Your task to perform on an android device: turn off sleep mode Image 0: 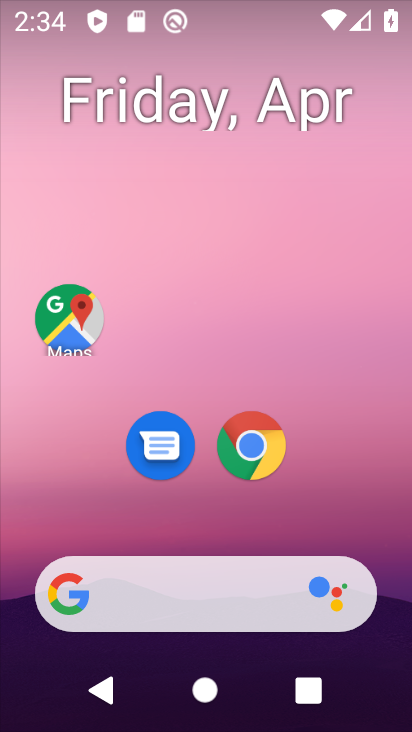
Step 0: drag from (334, 524) to (302, 25)
Your task to perform on an android device: turn off sleep mode Image 1: 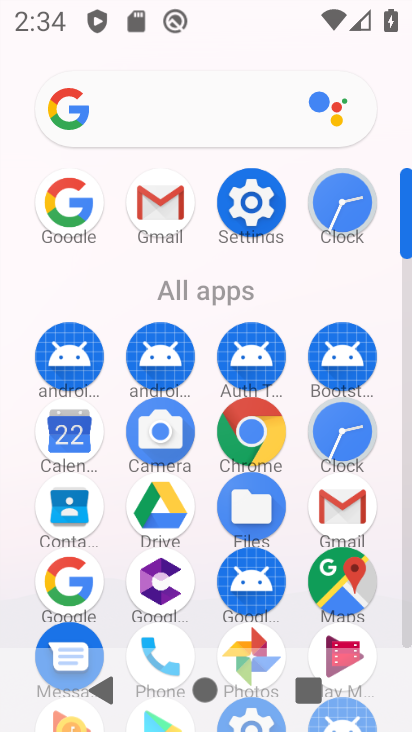
Step 1: click (254, 201)
Your task to perform on an android device: turn off sleep mode Image 2: 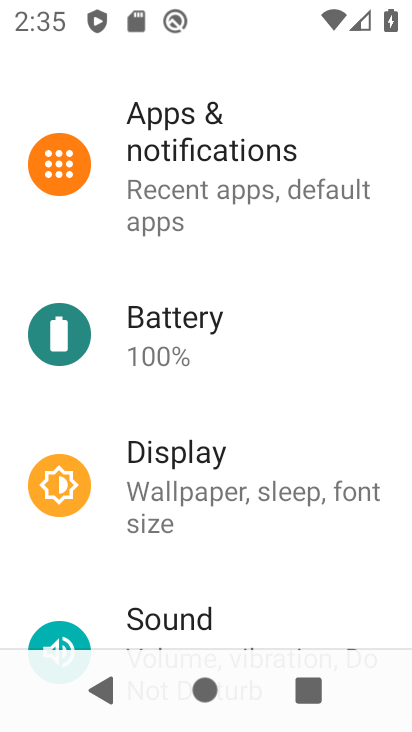
Step 2: click (263, 488)
Your task to perform on an android device: turn off sleep mode Image 3: 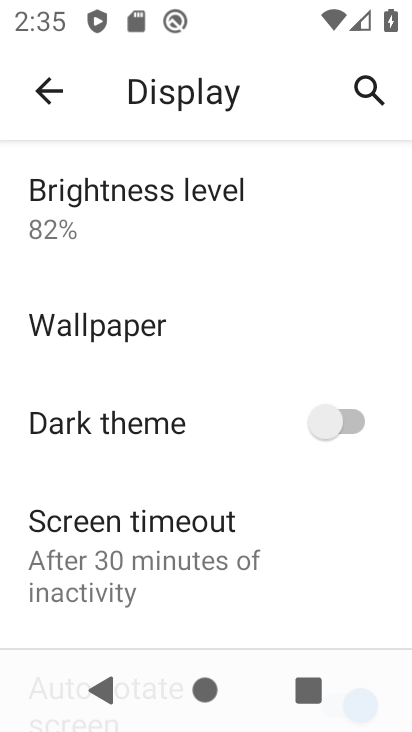
Step 3: drag from (196, 488) to (247, 381)
Your task to perform on an android device: turn off sleep mode Image 4: 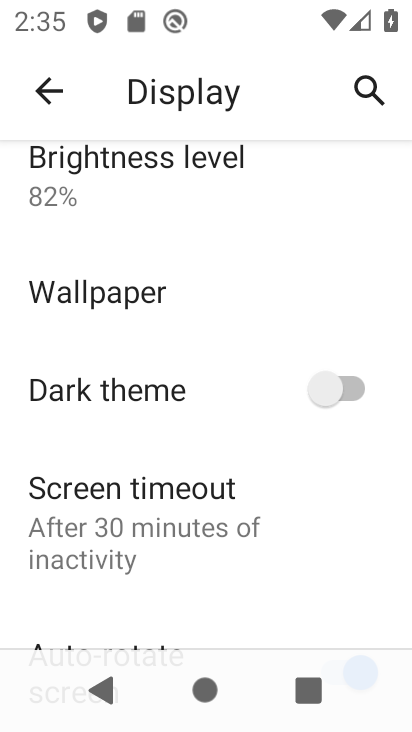
Step 4: drag from (163, 541) to (186, 443)
Your task to perform on an android device: turn off sleep mode Image 5: 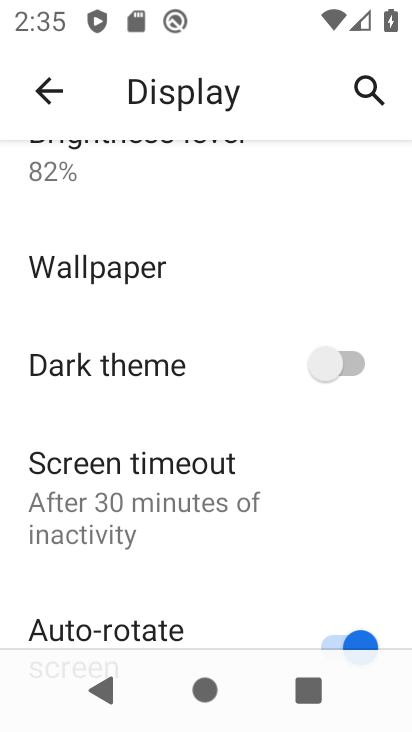
Step 5: click (169, 476)
Your task to perform on an android device: turn off sleep mode Image 6: 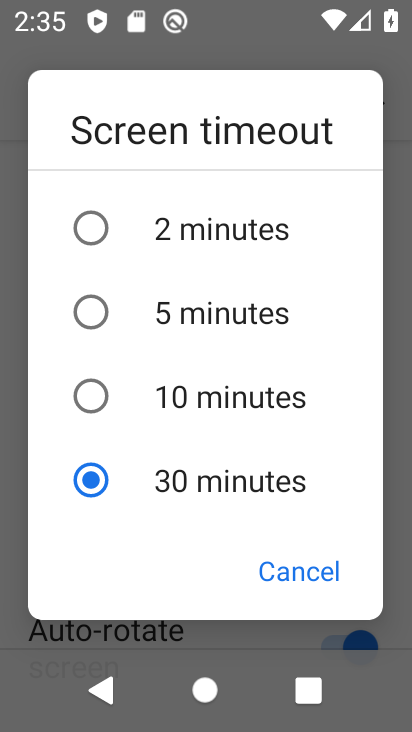
Step 6: click (230, 463)
Your task to perform on an android device: turn off sleep mode Image 7: 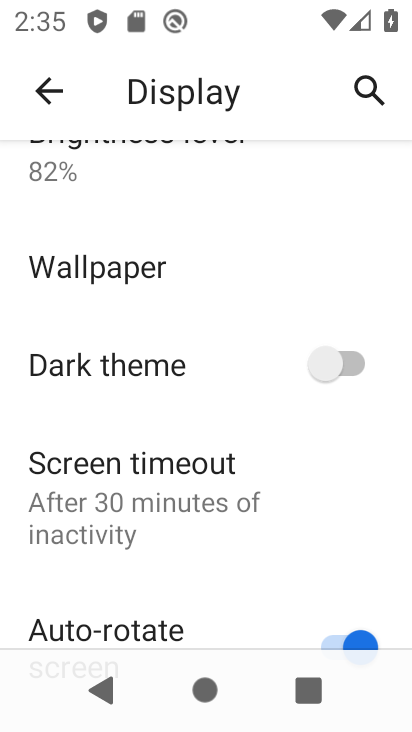
Step 7: drag from (275, 584) to (276, 446)
Your task to perform on an android device: turn off sleep mode Image 8: 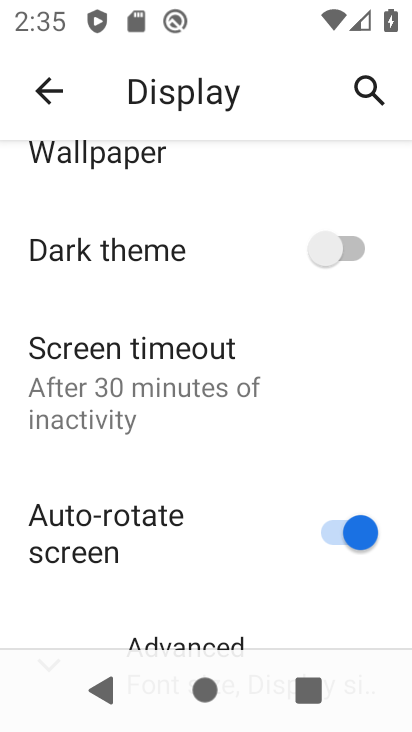
Step 8: drag from (227, 577) to (260, 442)
Your task to perform on an android device: turn off sleep mode Image 9: 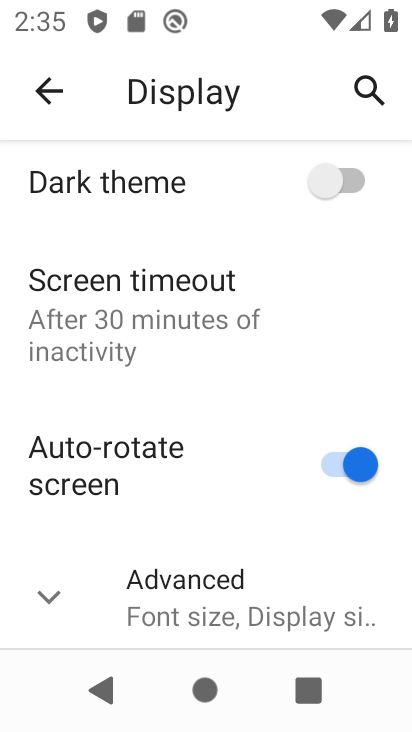
Step 9: click (211, 588)
Your task to perform on an android device: turn off sleep mode Image 10: 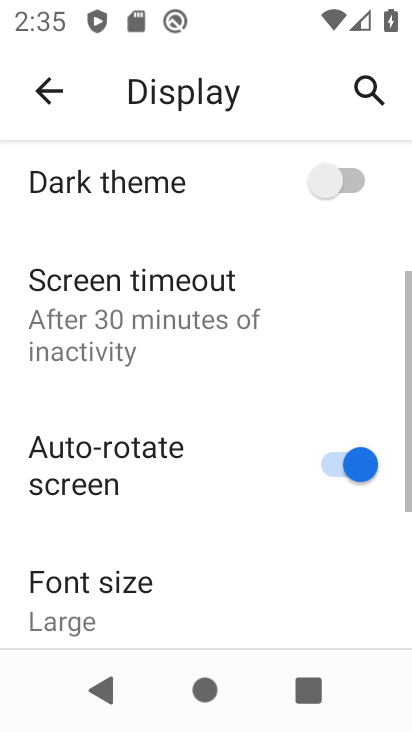
Step 10: task complete